Your task to perform on an android device: turn notification dots off Image 0: 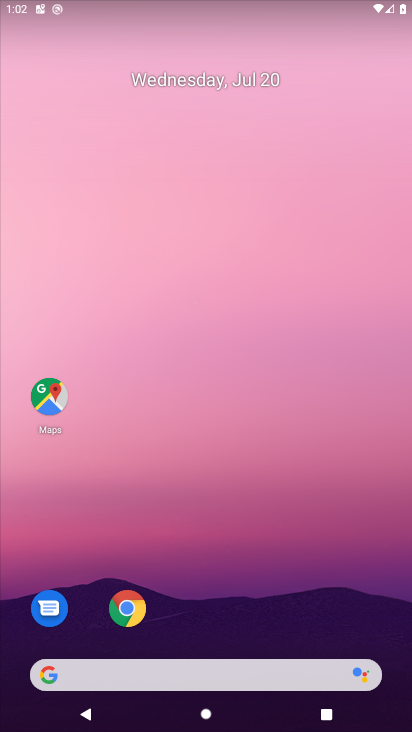
Step 0: drag from (194, 654) to (198, 208)
Your task to perform on an android device: turn notification dots off Image 1: 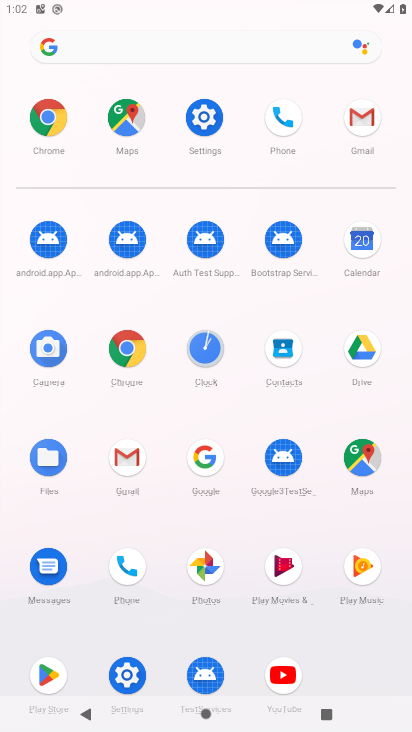
Step 1: click (133, 670)
Your task to perform on an android device: turn notification dots off Image 2: 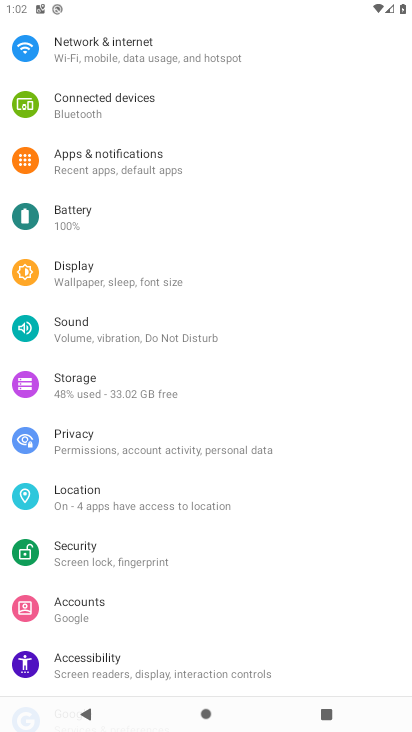
Step 2: click (100, 160)
Your task to perform on an android device: turn notification dots off Image 3: 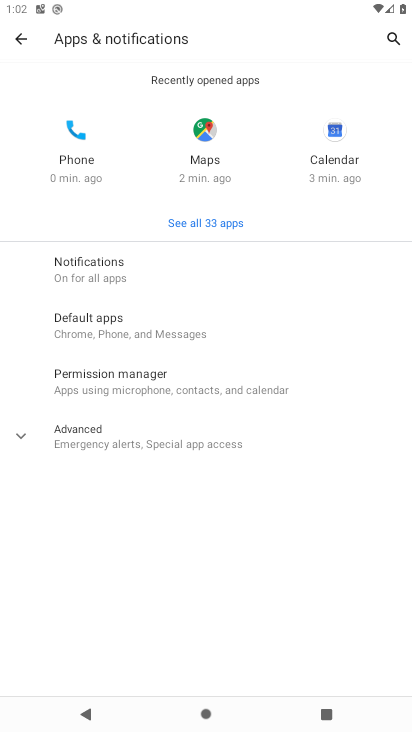
Step 3: click (80, 262)
Your task to perform on an android device: turn notification dots off Image 4: 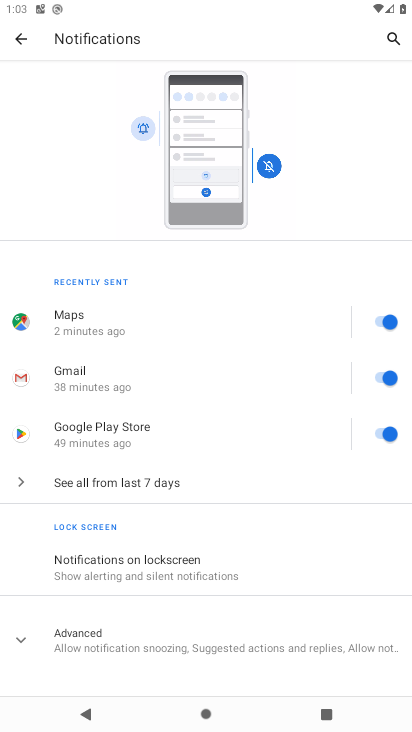
Step 4: drag from (135, 631) to (150, 241)
Your task to perform on an android device: turn notification dots off Image 5: 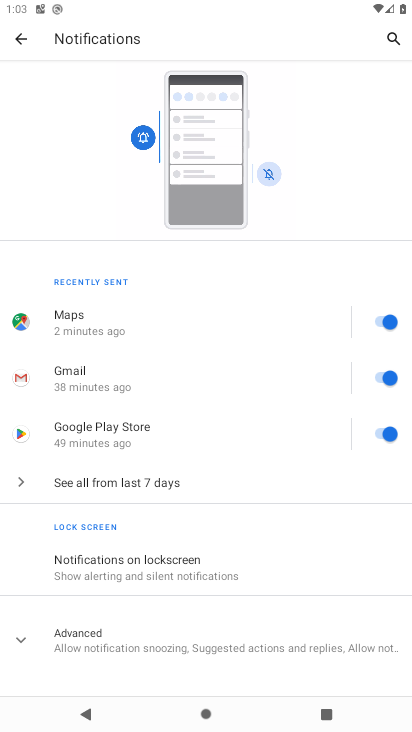
Step 5: click (106, 639)
Your task to perform on an android device: turn notification dots off Image 6: 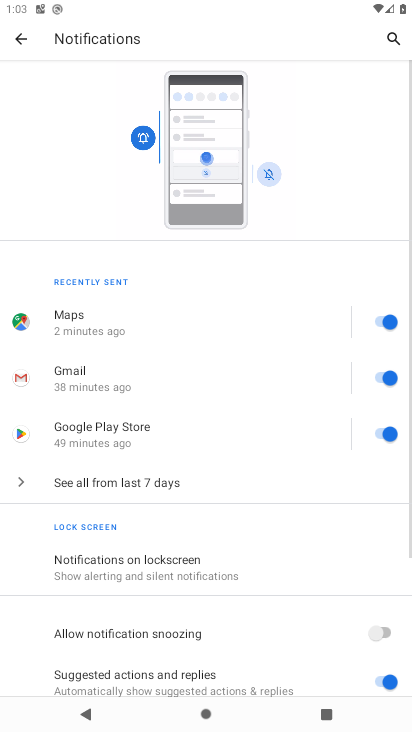
Step 6: task complete